Your task to perform on an android device: Turn on the flashlight Image 0: 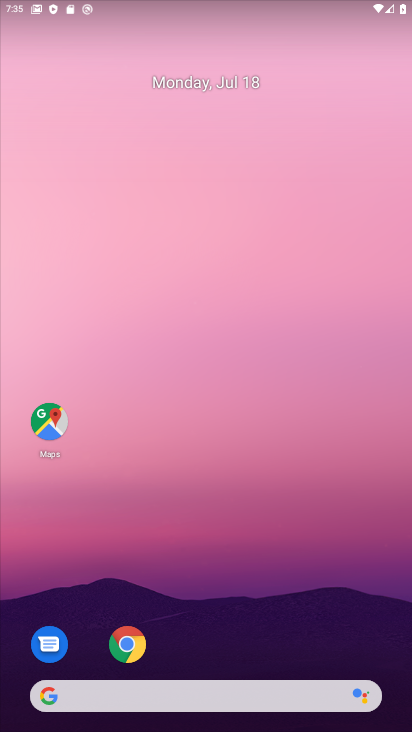
Step 0: drag from (285, 7) to (221, 326)
Your task to perform on an android device: Turn on the flashlight Image 1: 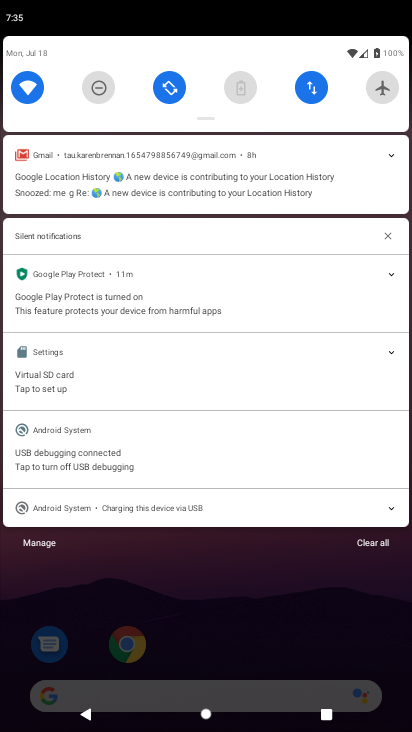
Step 1: task complete